Your task to perform on an android device: open a new tab in the chrome app Image 0: 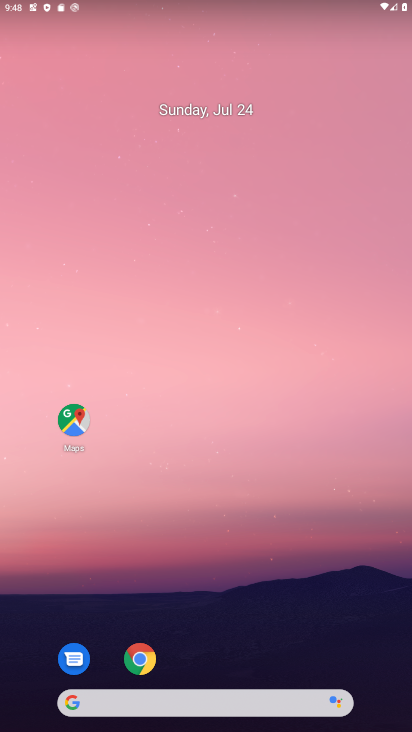
Step 0: click (137, 657)
Your task to perform on an android device: open a new tab in the chrome app Image 1: 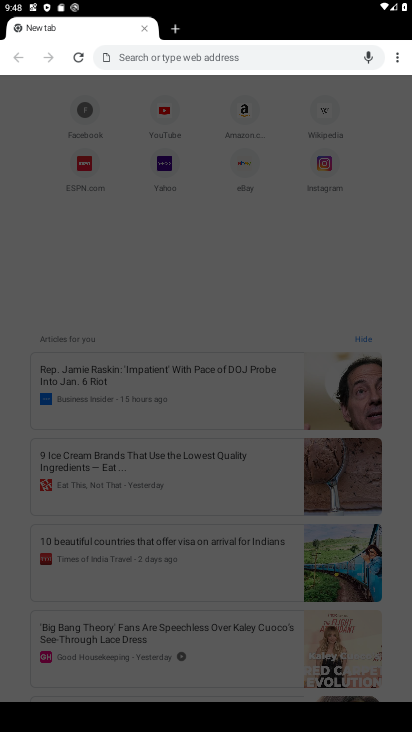
Step 1: click (399, 58)
Your task to perform on an android device: open a new tab in the chrome app Image 2: 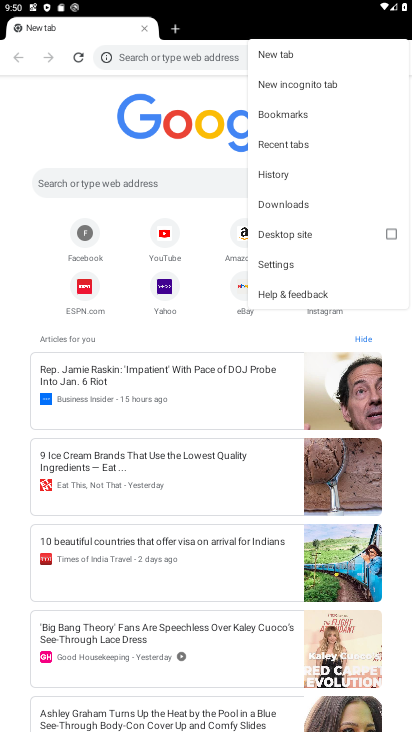
Step 2: click (283, 54)
Your task to perform on an android device: open a new tab in the chrome app Image 3: 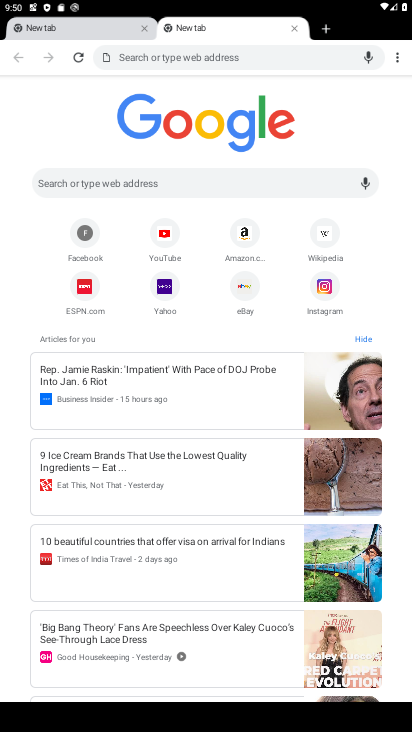
Step 3: task complete